Your task to perform on an android device: Go to location settings Image 0: 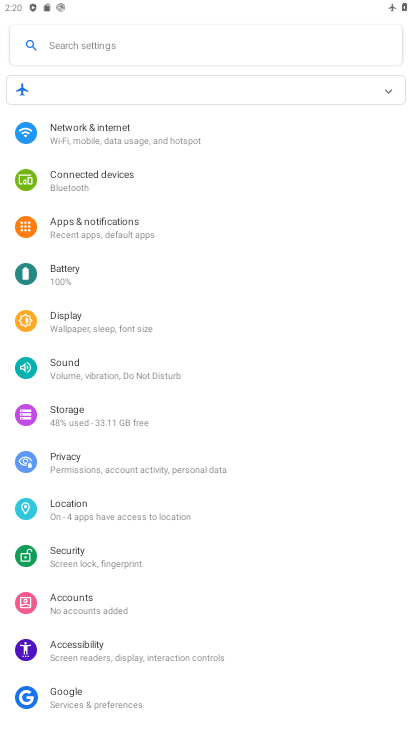
Step 0: press home button
Your task to perform on an android device: Go to location settings Image 1: 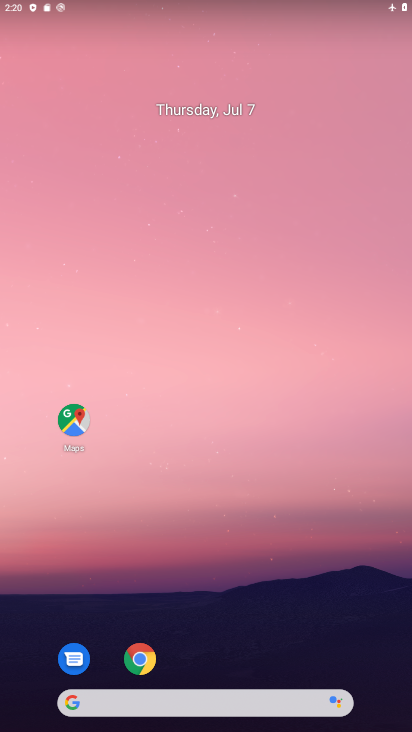
Step 1: drag from (14, 699) to (285, 3)
Your task to perform on an android device: Go to location settings Image 2: 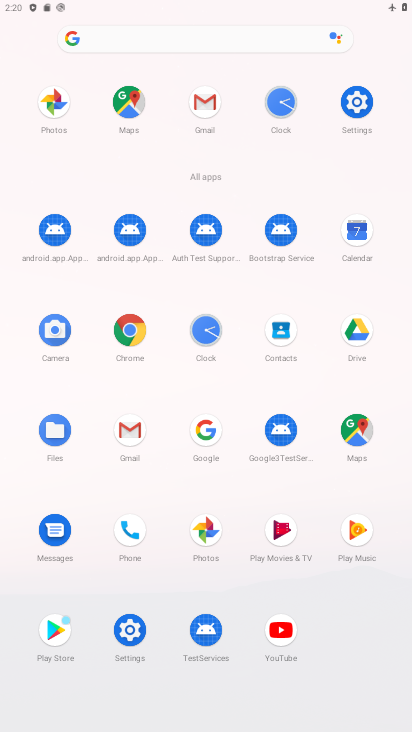
Step 2: click (119, 640)
Your task to perform on an android device: Go to location settings Image 3: 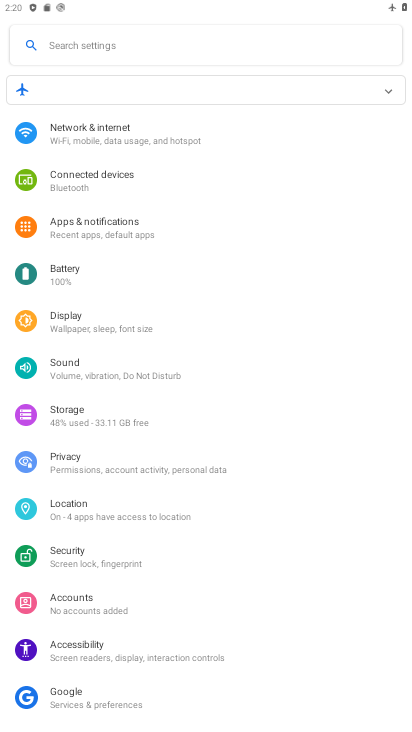
Step 3: click (111, 504)
Your task to perform on an android device: Go to location settings Image 4: 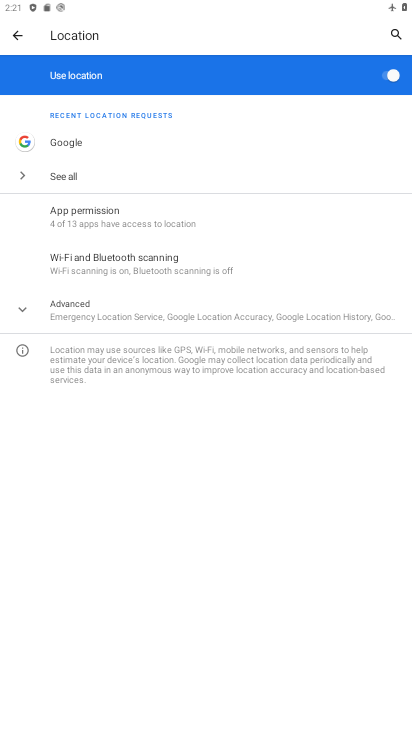
Step 4: task complete